Your task to perform on an android device: turn on translation in the chrome app Image 0: 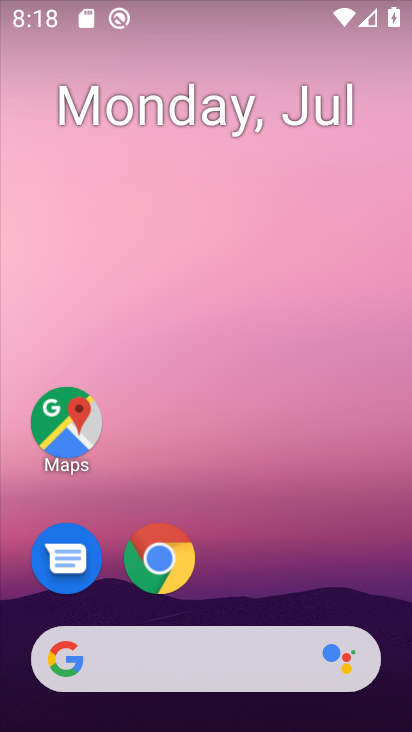
Step 0: drag from (347, 573) to (363, 167)
Your task to perform on an android device: turn on translation in the chrome app Image 1: 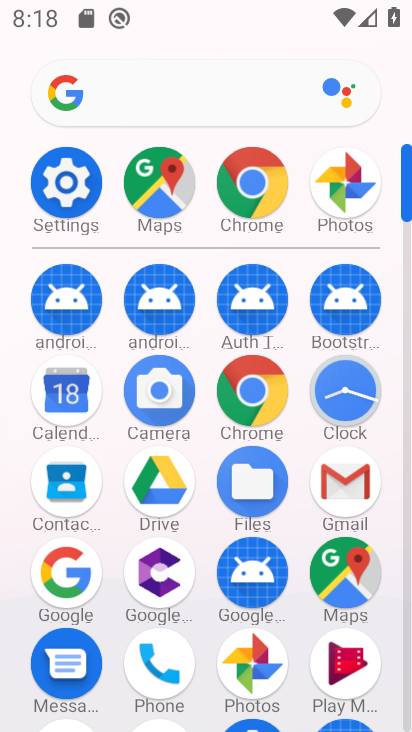
Step 1: click (264, 385)
Your task to perform on an android device: turn on translation in the chrome app Image 2: 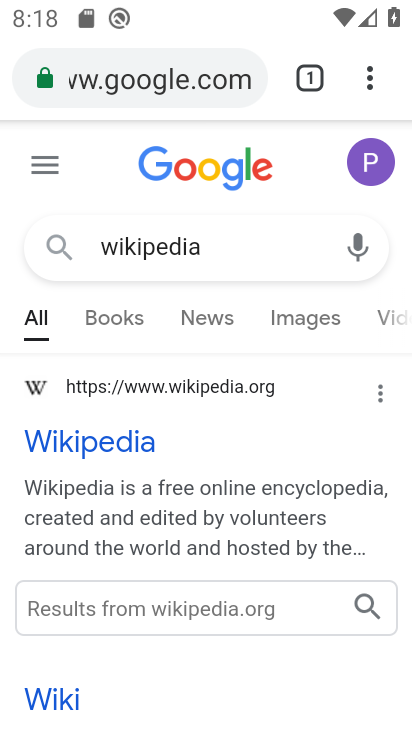
Step 2: click (370, 84)
Your task to perform on an android device: turn on translation in the chrome app Image 3: 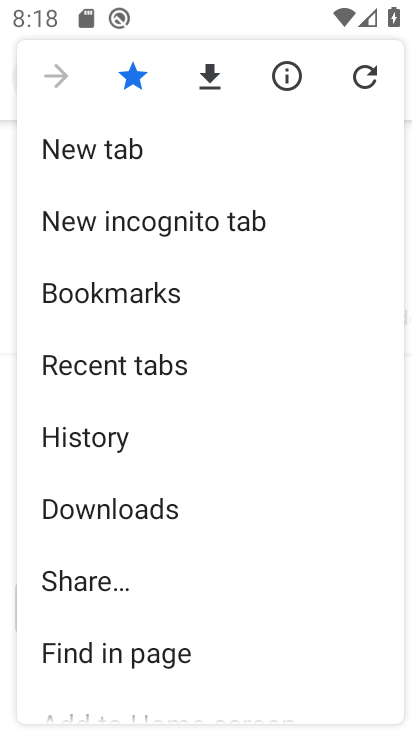
Step 3: drag from (332, 342) to (342, 279)
Your task to perform on an android device: turn on translation in the chrome app Image 4: 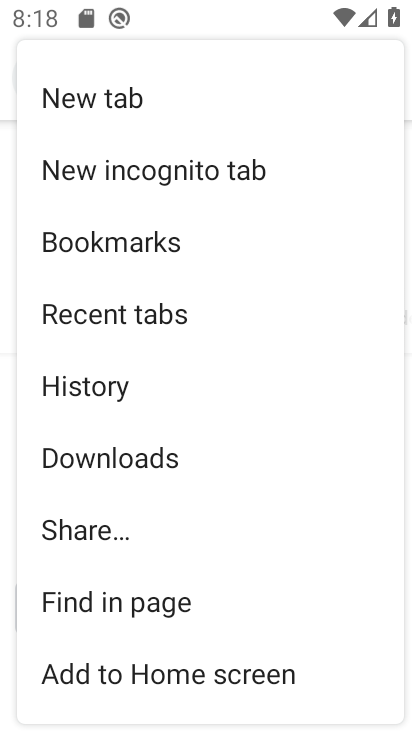
Step 4: drag from (320, 387) to (324, 295)
Your task to perform on an android device: turn on translation in the chrome app Image 5: 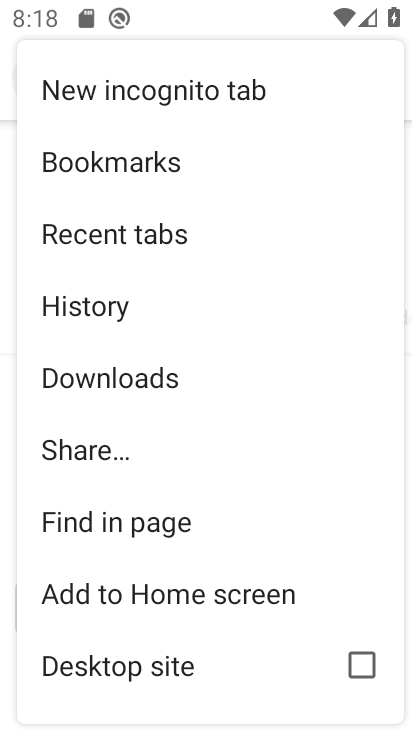
Step 5: drag from (304, 378) to (313, 304)
Your task to perform on an android device: turn on translation in the chrome app Image 6: 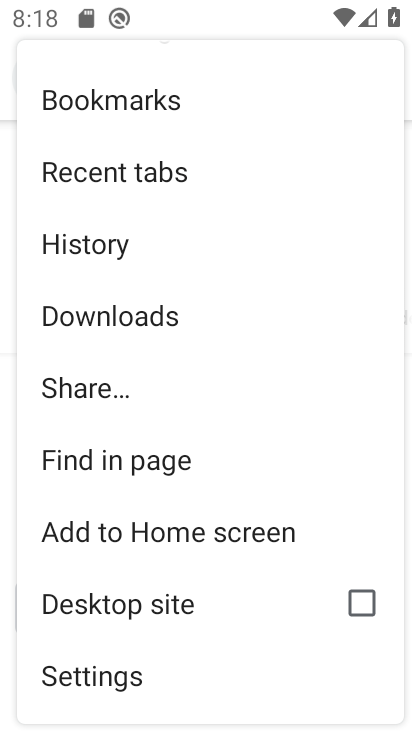
Step 6: click (207, 678)
Your task to perform on an android device: turn on translation in the chrome app Image 7: 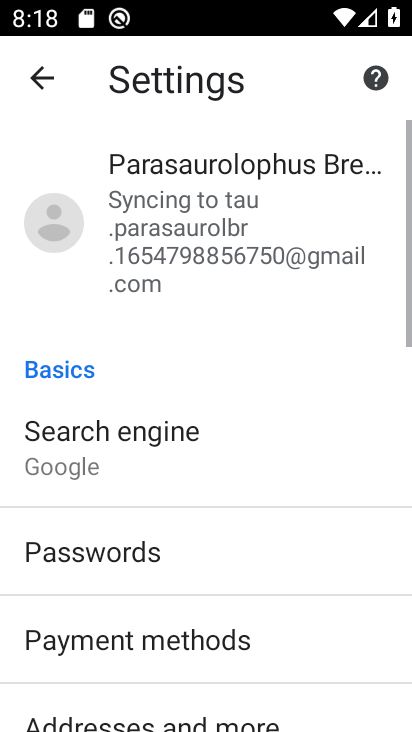
Step 7: drag from (311, 629) to (322, 541)
Your task to perform on an android device: turn on translation in the chrome app Image 8: 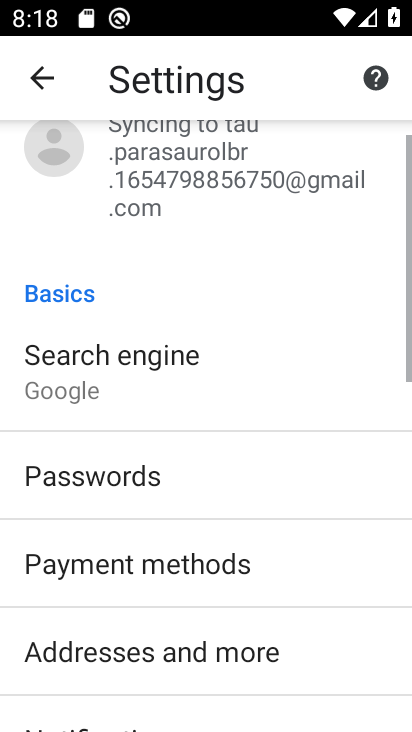
Step 8: drag from (334, 630) to (343, 551)
Your task to perform on an android device: turn on translation in the chrome app Image 9: 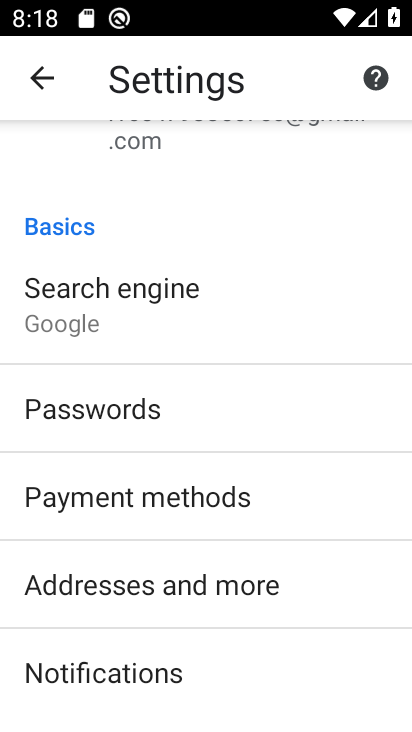
Step 9: drag from (342, 633) to (343, 545)
Your task to perform on an android device: turn on translation in the chrome app Image 10: 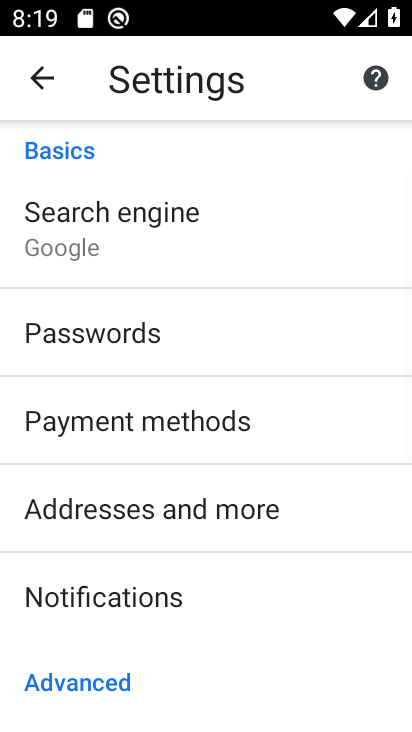
Step 10: drag from (321, 626) to (325, 512)
Your task to perform on an android device: turn on translation in the chrome app Image 11: 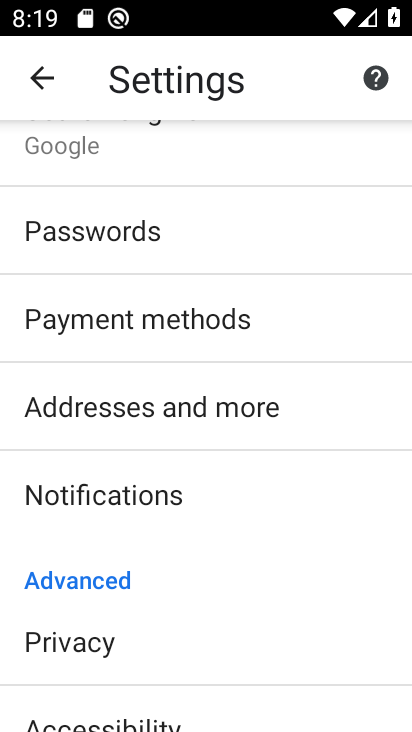
Step 11: drag from (328, 589) to (331, 472)
Your task to perform on an android device: turn on translation in the chrome app Image 12: 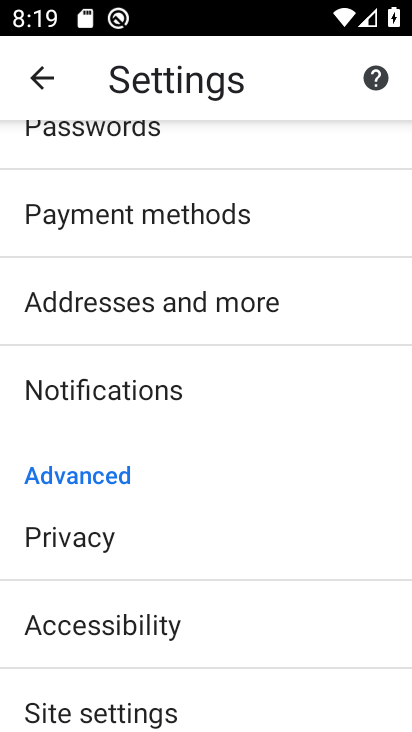
Step 12: drag from (334, 603) to (341, 486)
Your task to perform on an android device: turn on translation in the chrome app Image 13: 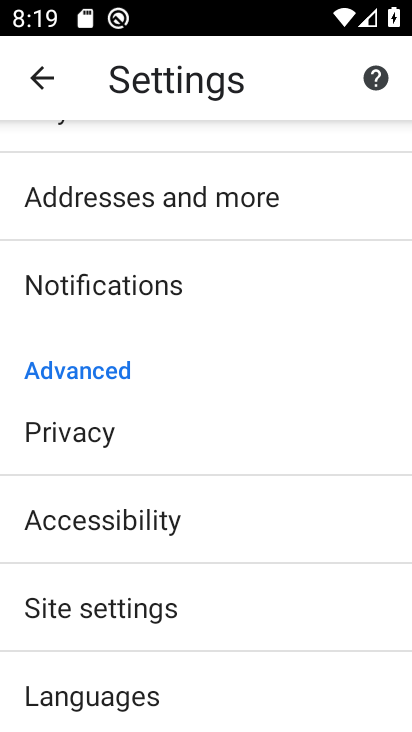
Step 13: drag from (311, 621) to (305, 382)
Your task to perform on an android device: turn on translation in the chrome app Image 14: 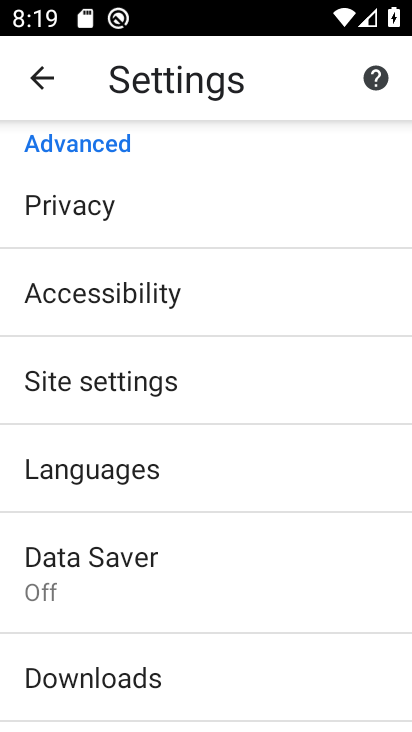
Step 14: click (313, 497)
Your task to perform on an android device: turn on translation in the chrome app Image 15: 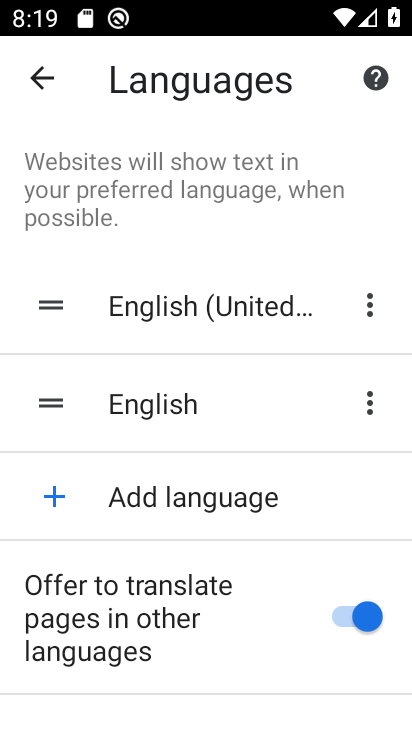
Step 15: task complete